Your task to perform on an android device: Go to Android settings Image 0: 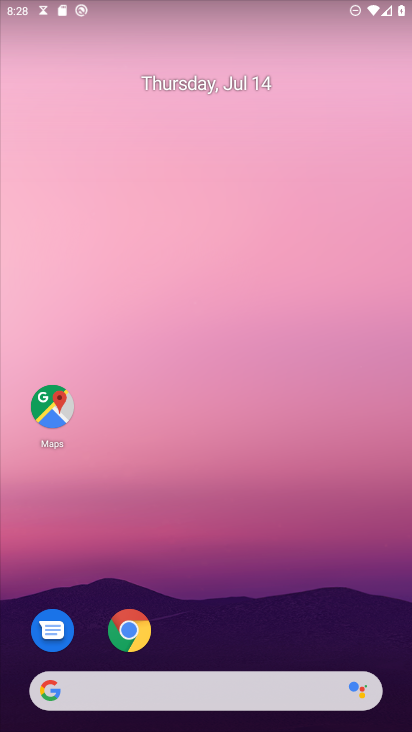
Step 0: drag from (295, 601) to (265, 64)
Your task to perform on an android device: Go to Android settings Image 1: 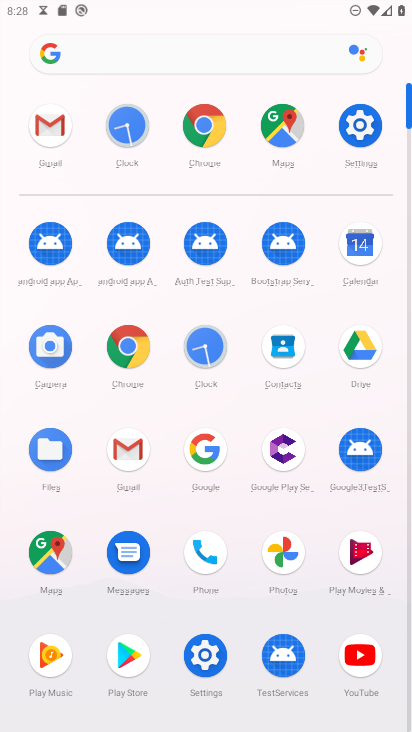
Step 1: click (356, 113)
Your task to perform on an android device: Go to Android settings Image 2: 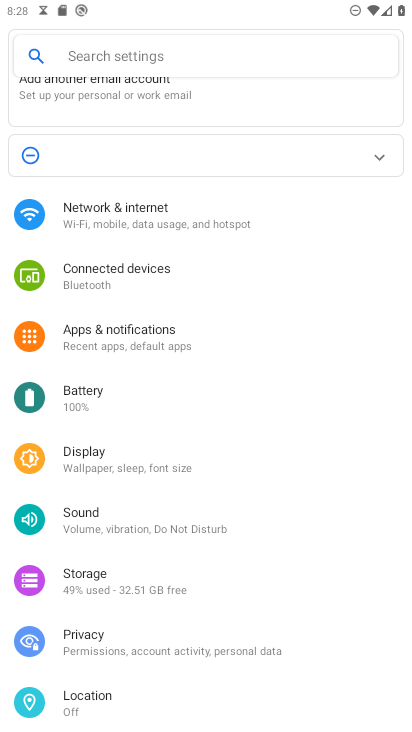
Step 2: drag from (108, 481) to (99, 213)
Your task to perform on an android device: Go to Android settings Image 3: 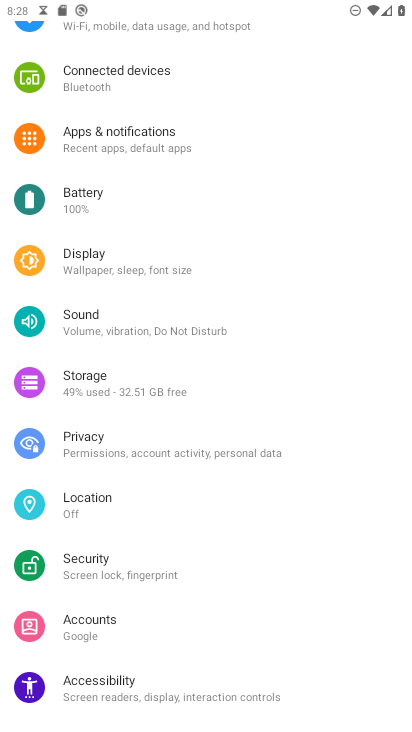
Step 3: drag from (129, 619) to (112, 412)
Your task to perform on an android device: Go to Android settings Image 4: 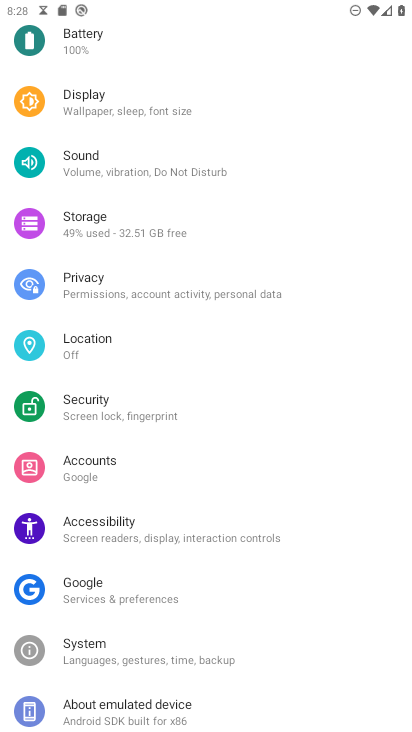
Step 4: click (107, 671)
Your task to perform on an android device: Go to Android settings Image 5: 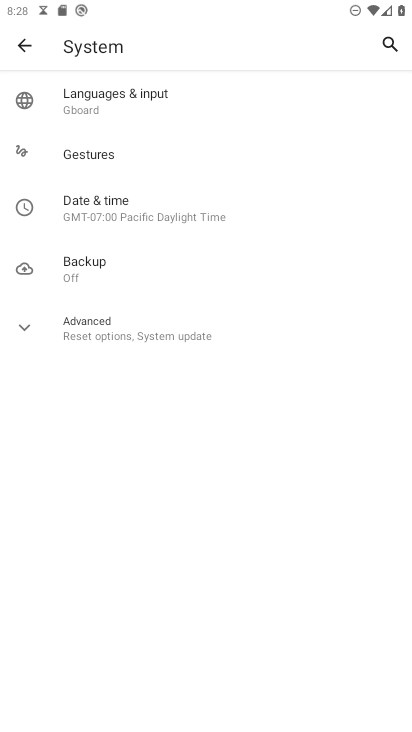
Step 5: task complete